Your task to perform on an android device: Open privacy settings Image 0: 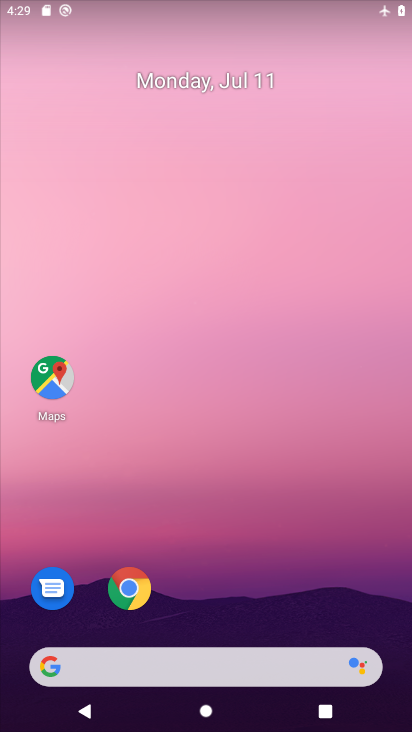
Step 0: drag from (327, 611) to (338, 80)
Your task to perform on an android device: Open privacy settings Image 1: 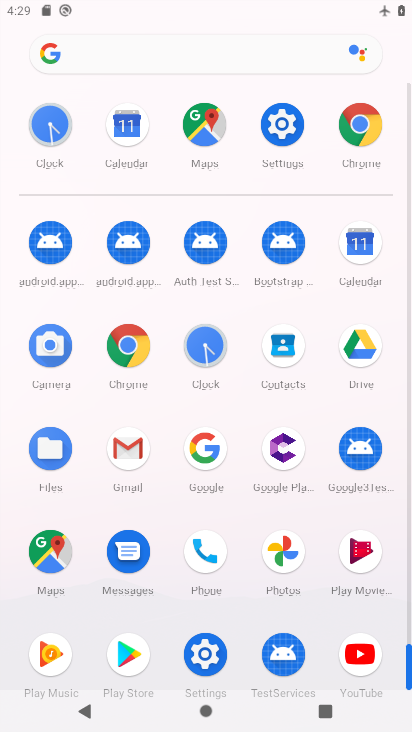
Step 1: click (293, 138)
Your task to perform on an android device: Open privacy settings Image 2: 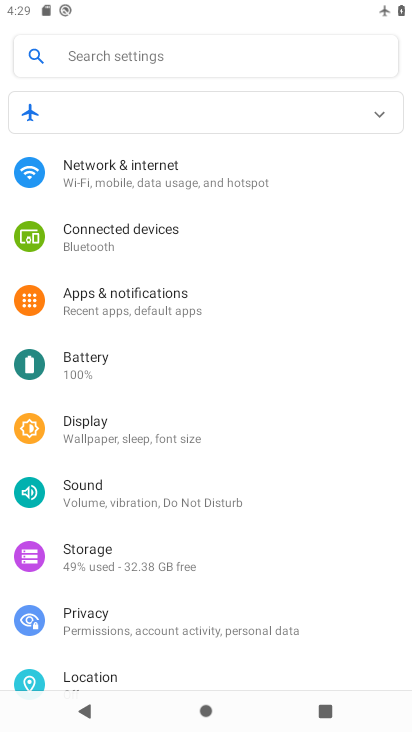
Step 2: drag from (306, 339) to (306, 248)
Your task to perform on an android device: Open privacy settings Image 3: 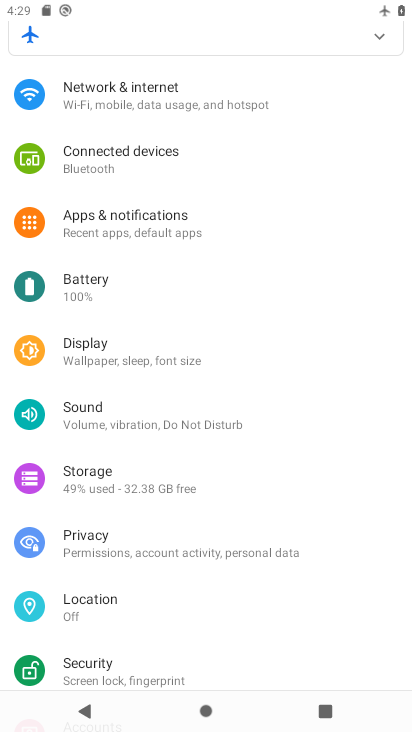
Step 3: drag from (320, 381) to (302, 244)
Your task to perform on an android device: Open privacy settings Image 4: 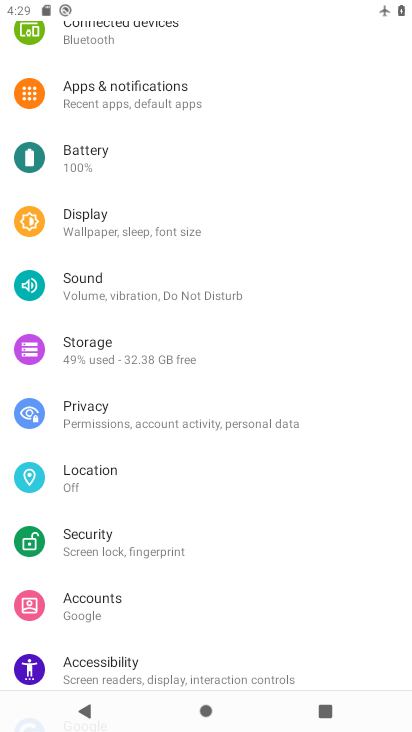
Step 4: drag from (321, 427) to (319, 167)
Your task to perform on an android device: Open privacy settings Image 5: 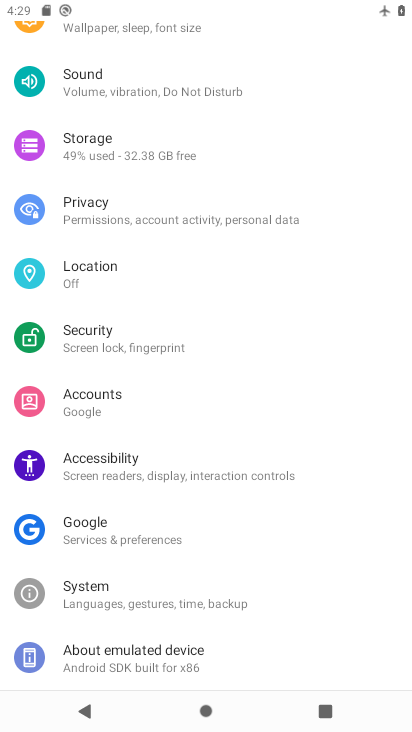
Step 5: drag from (333, 387) to (359, 184)
Your task to perform on an android device: Open privacy settings Image 6: 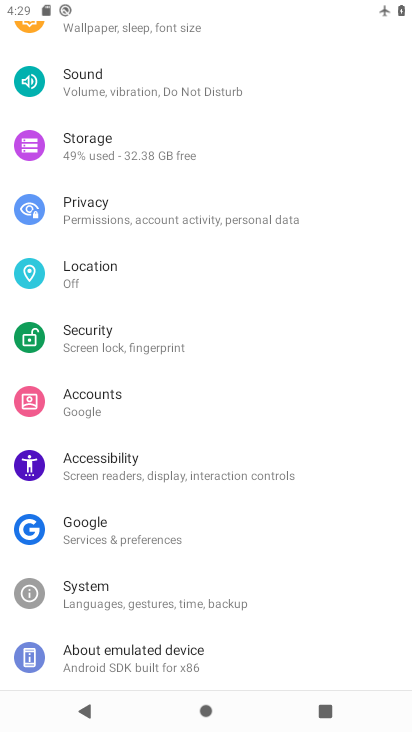
Step 6: click (246, 209)
Your task to perform on an android device: Open privacy settings Image 7: 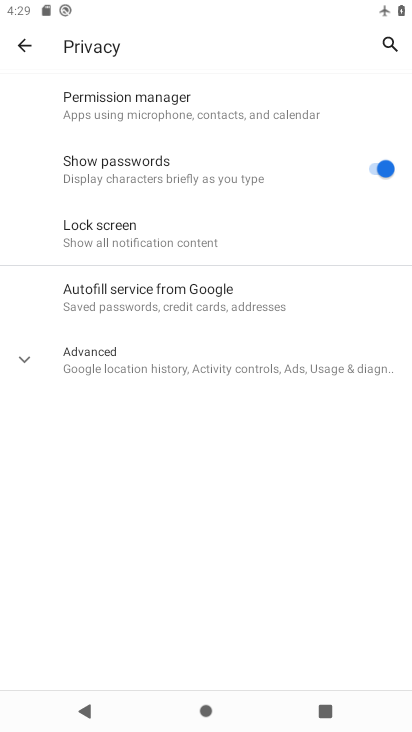
Step 7: click (261, 354)
Your task to perform on an android device: Open privacy settings Image 8: 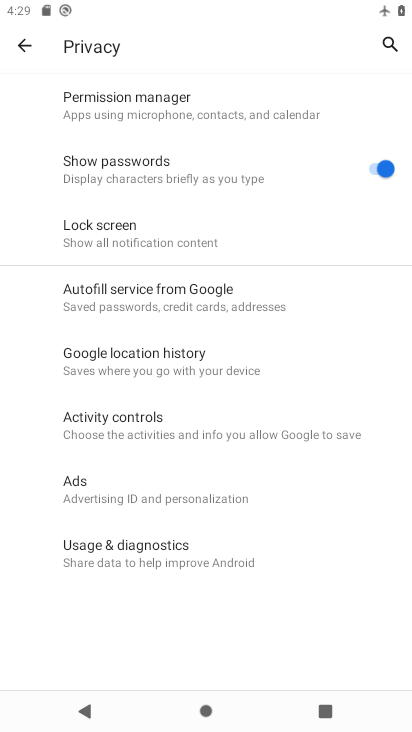
Step 8: task complete